Your task to perform on an android device: What's the weather going to be this weekend? Image 0: 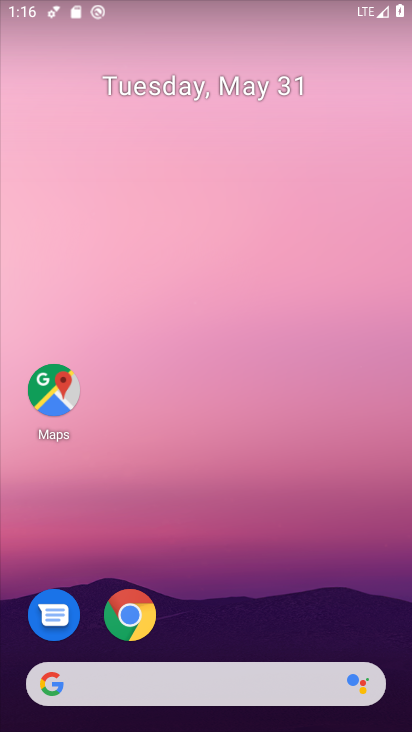
Step 0: click (178, 691)
Your task to perform on an android device: What's the weather going to be this weekend? Image 1: 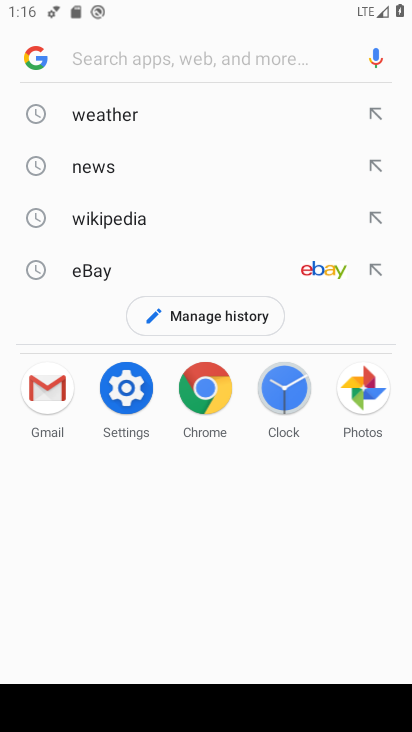
Step 1: click (134, 120)
Your task to perform on an android device: What's the weather going to be this weekend? Image 2: 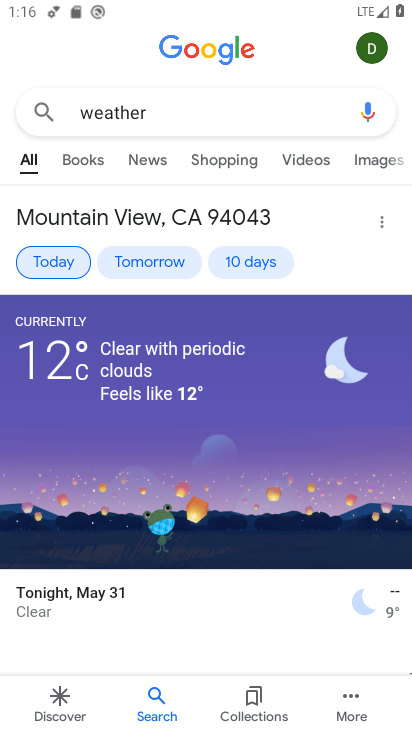
Step 2: click (263, 270)
Your task to perform on an android device: What's the weather going to be this weekend? Image 3: 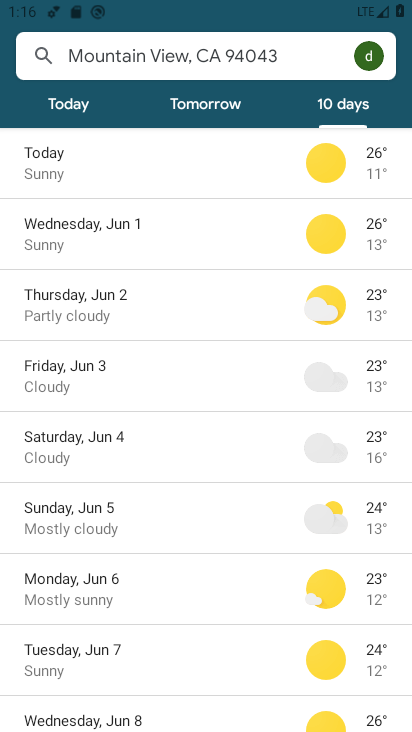
Step 3: task complete